Your task to perform on an android device: Search for vegetarian restaurants on Maps Image 0: 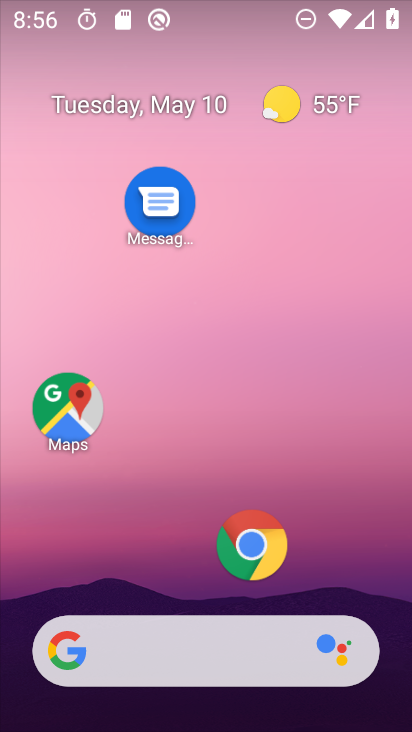
Step 0: click (74, 427)
Your task to perform on an android device: Search for vegetarian restaurants on Maps Image 1: 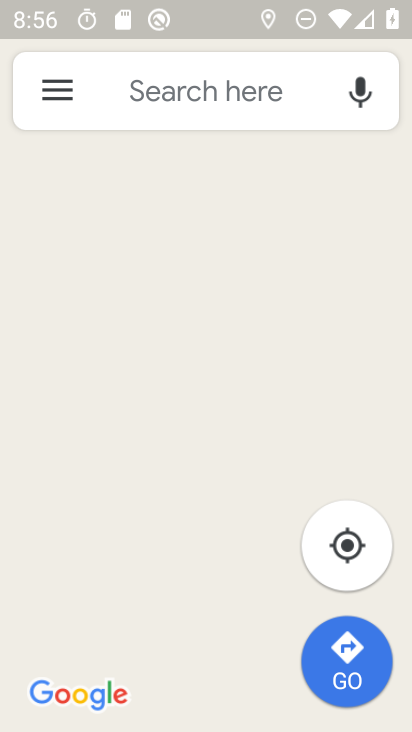
Step 1: click (192, 89)
Your task to perform on an android device: Search for vegetarian restaurants on Maps Image 2: 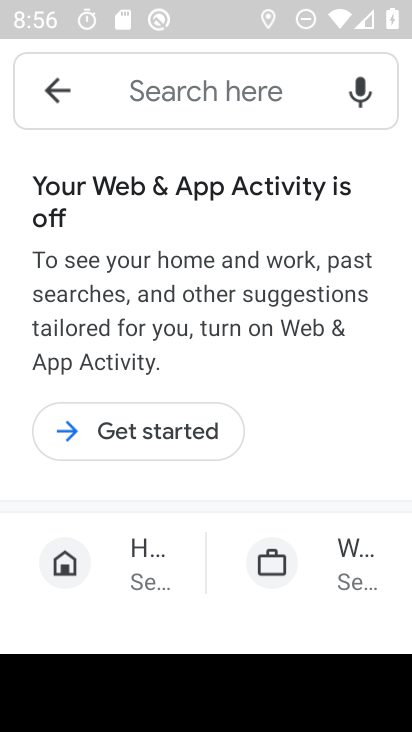
Step 2: type "vegetarian restaurants"
Your task to perform on an android device: Search for vegetarian restaurants on Maps Image 3: 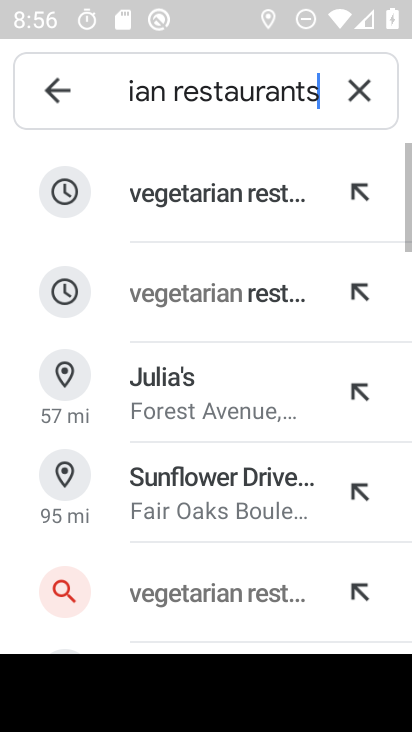
Step 3: click (176, 180)
Your task to perform on an android device: Search for vegetarian restaurants on Maps Image 4: 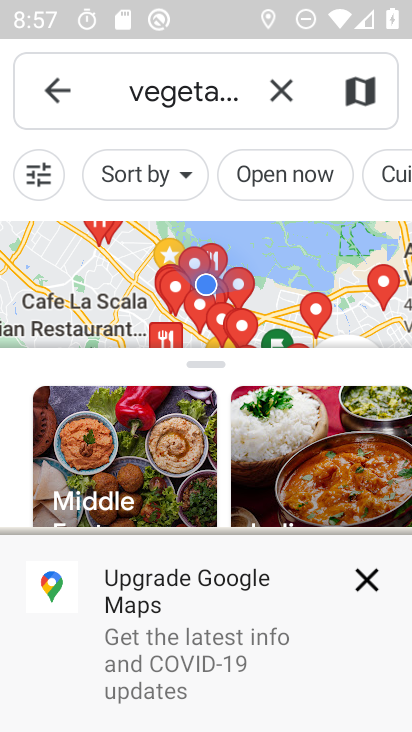
Step 4: task complete